Your task to perform on an android device: Clear all items from cart on amazon. Image 0: 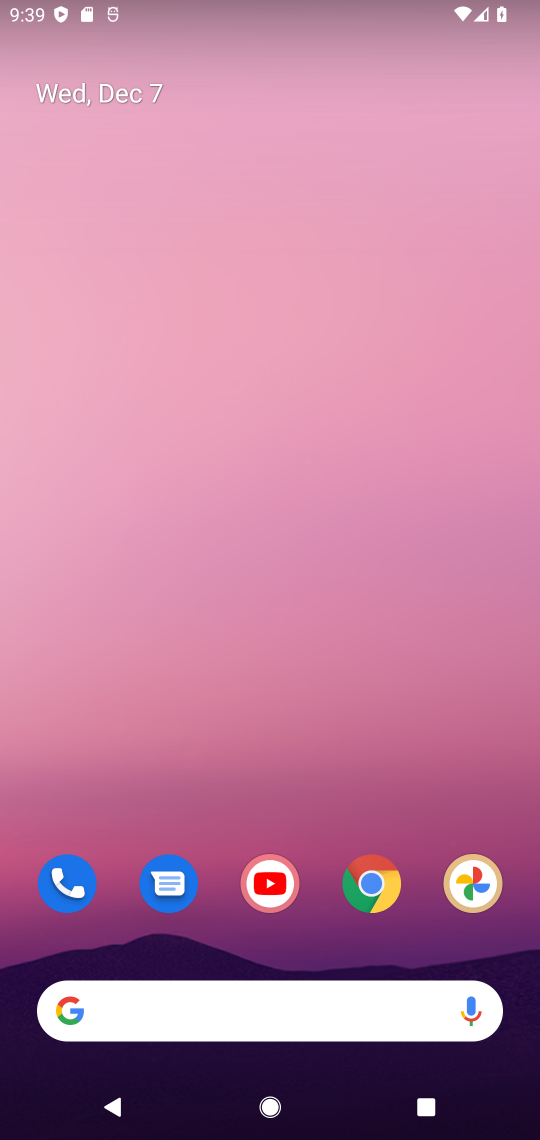
Step 0: drag from (245, 961) to (306, 203)
Your task to perform on an android device: Clear all items from cart on amazon. Image 1: 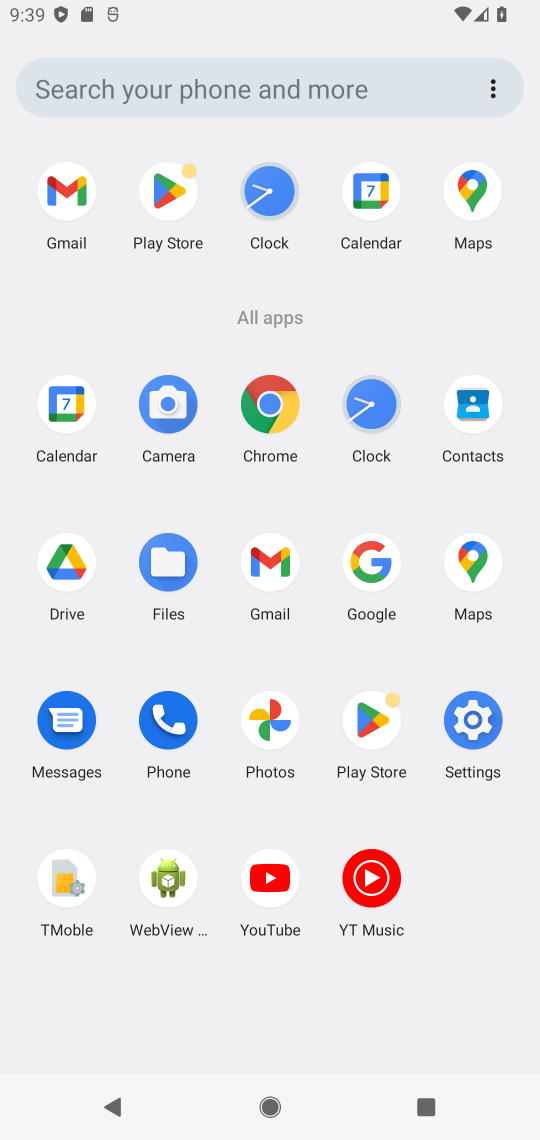
Step 1: click (376, 563)
Your task to perform on an android device: Clear all items from cart on amazon. Image 2: 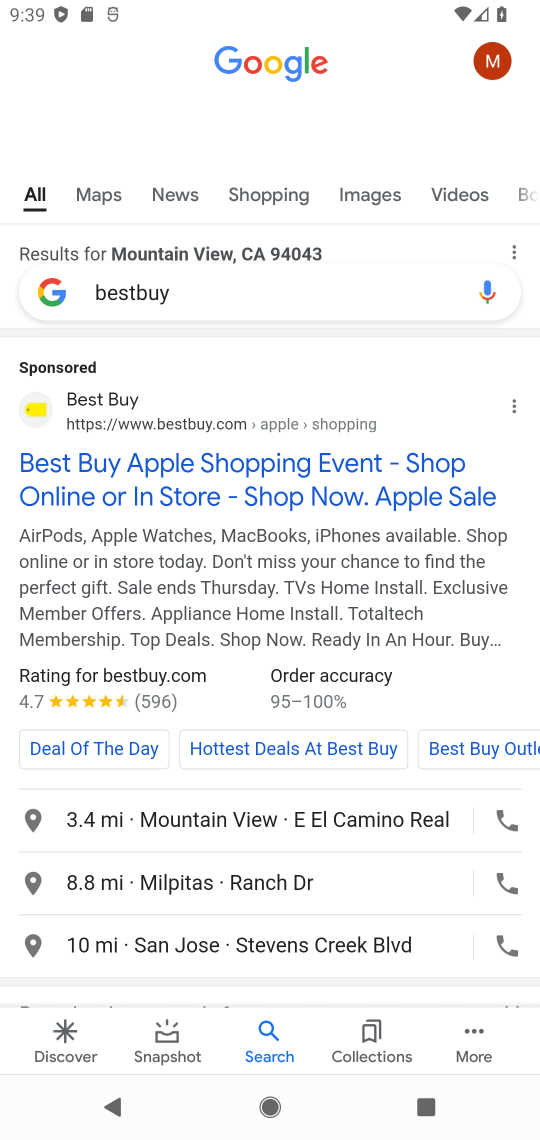
Step 2: click (145, 297)
Your task to perform on an android device: Clear all items from cart on amazon. Image 3: 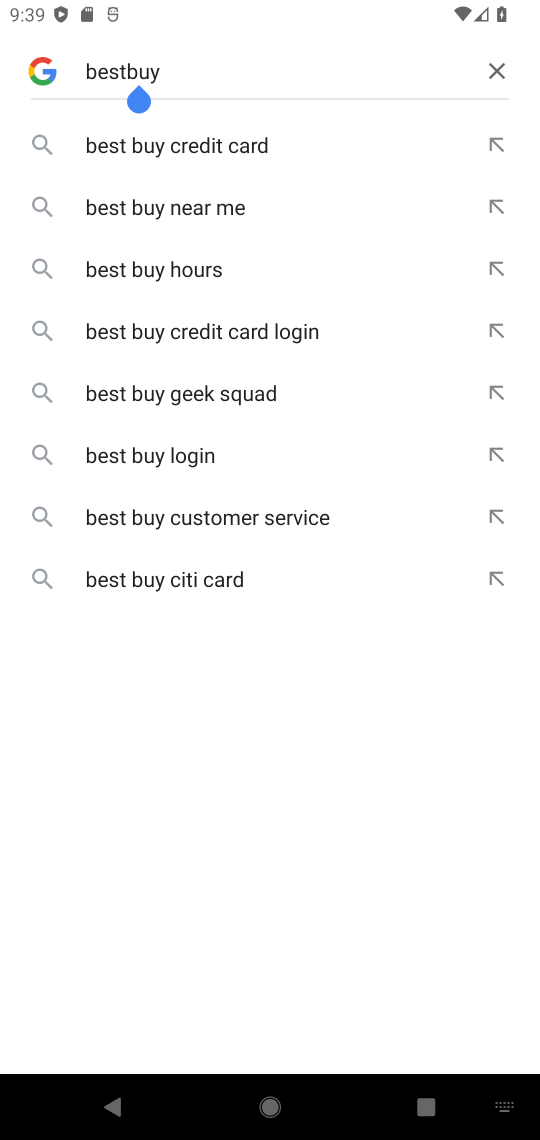
Step 3: click (507, 72)
Your task to perform on an android device: Clear all items from cart on amazon. Image 4: 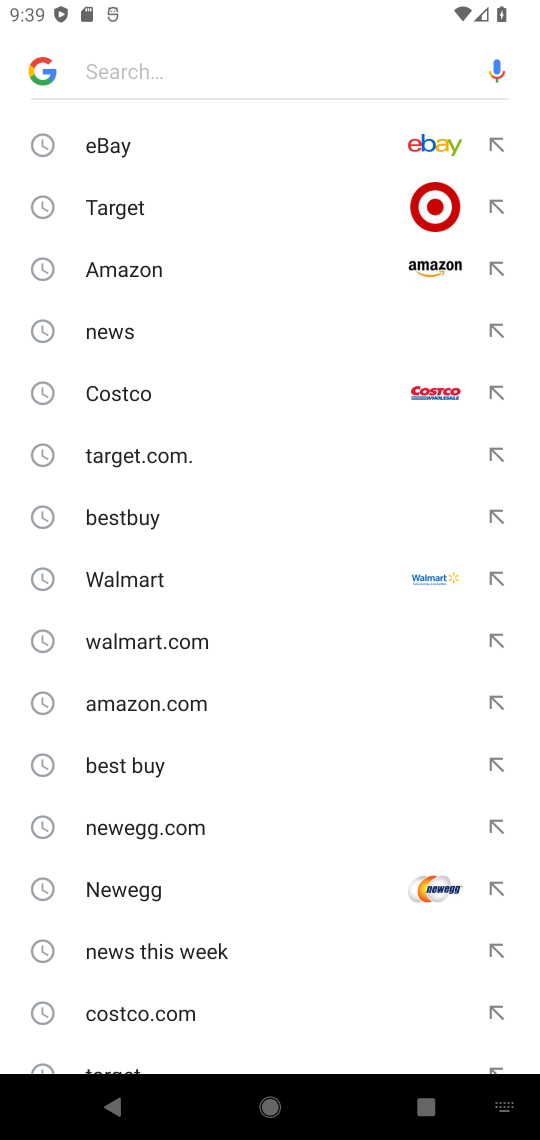
Step 4: click (132, 281)
Your task to perform on an android device: Clear all items from cart on amazon. Image 5: 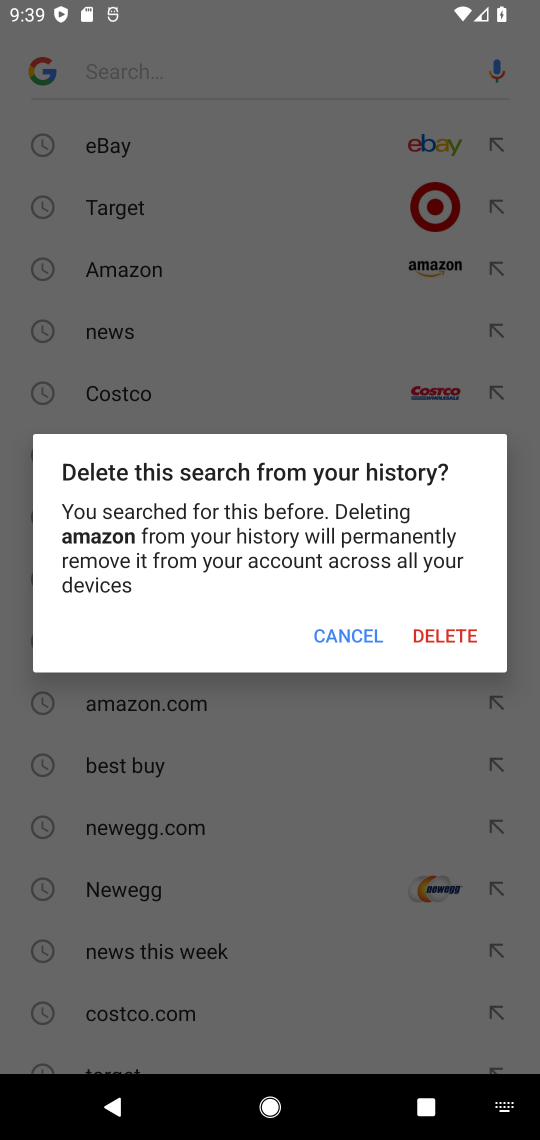
Step 5: click (345, 631)
Your task to perform on an android device: Clear all items from cart on amazon. Image 6: 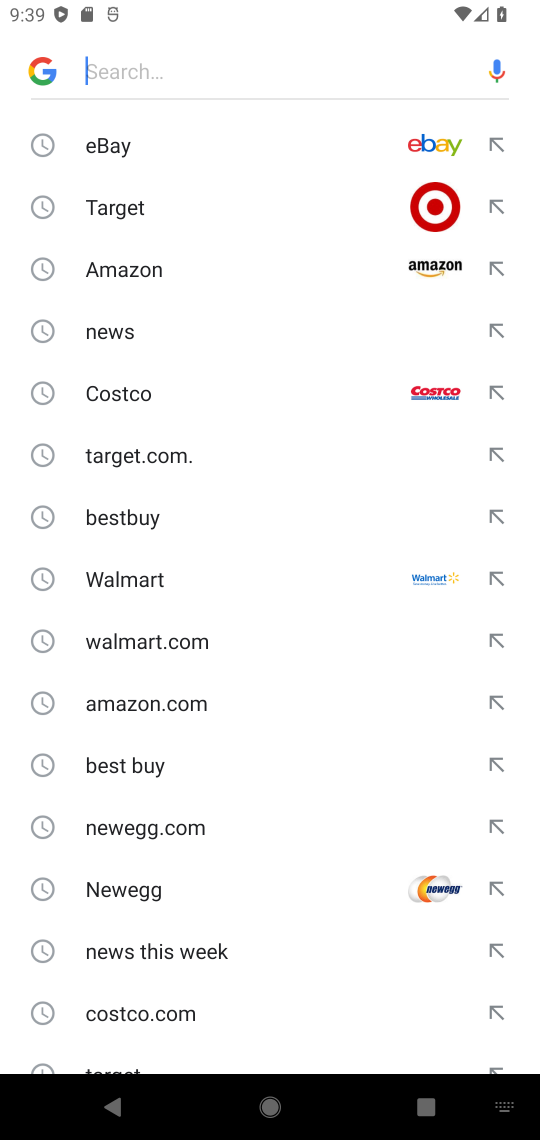
Step 6: click (438, 260)
Your task to perform on an android device: Clear all items from cart on amazon. Image 7: 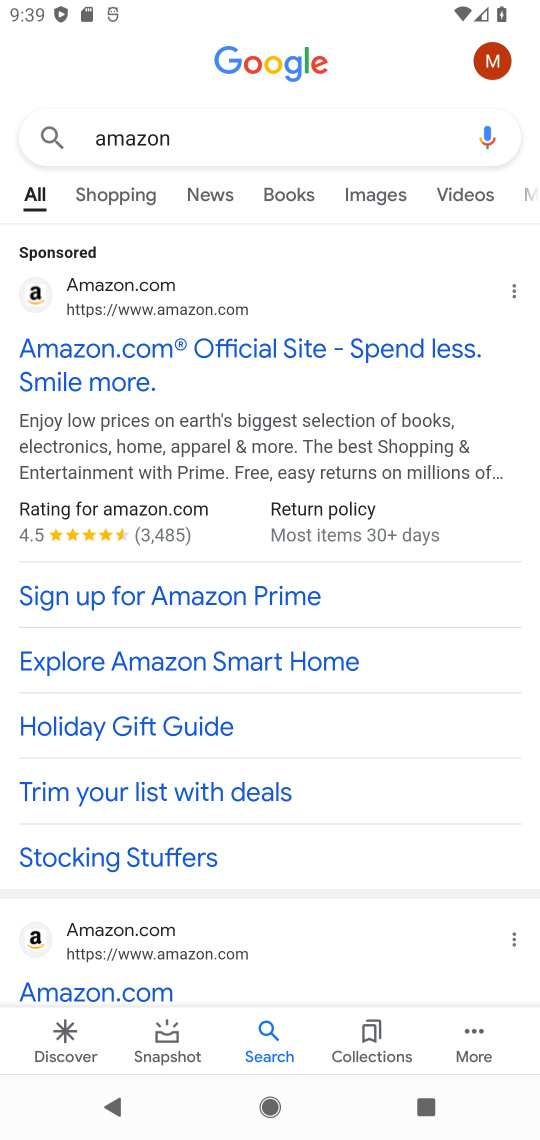
Step 7: click (110, 362)
Your task to perform on an android device: Clear all items from cart on amazon. Image 8: 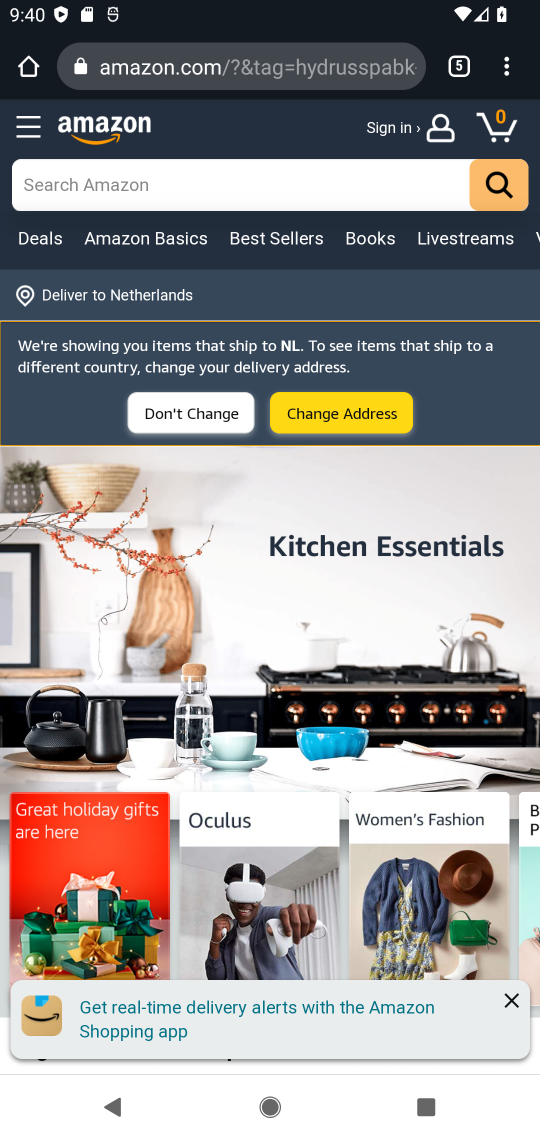
Step 8: click (499, 112)
Your task to perform on an android device: Clear all items from cart on amazon. Image 9: 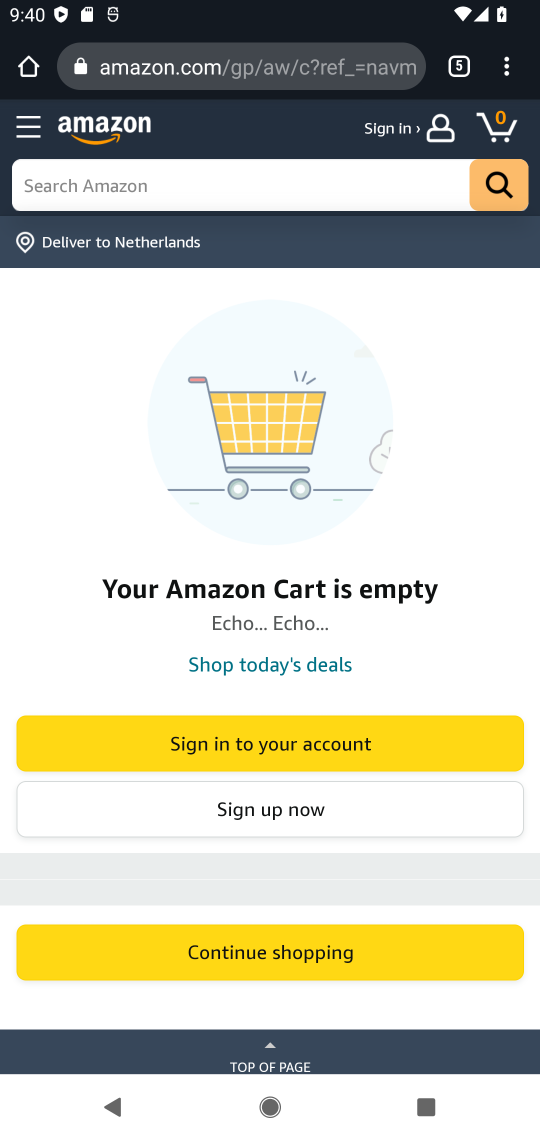
Step 9: task complete